Your task to perform on an android device: toggle airplane mode Image 0: 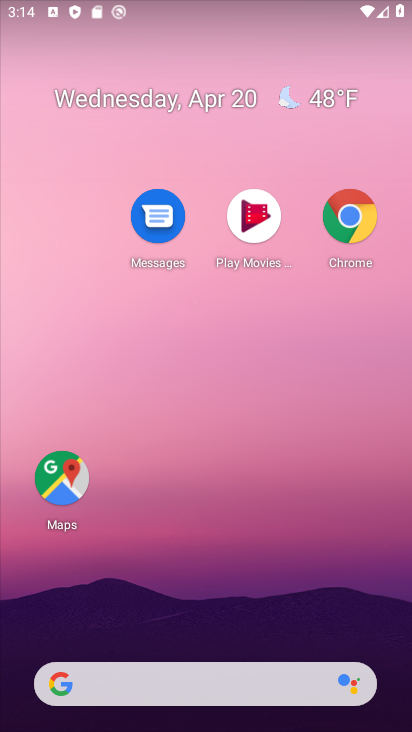
Step 0: click (334, 109)
Your task to perform on an android device: toggle airplane mode Image 1: 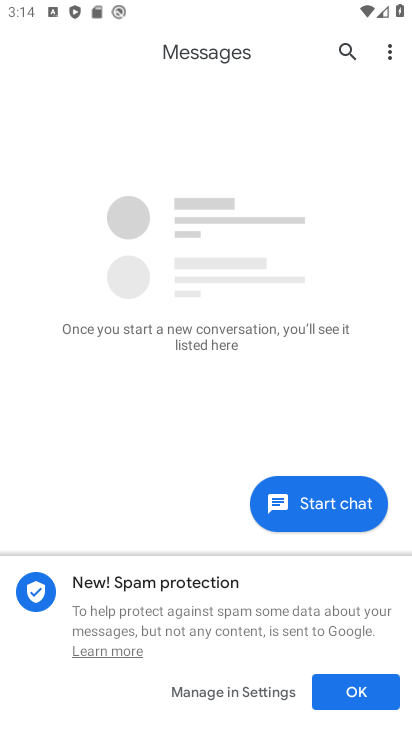
Step 1: press home button
Your task to perform on an android device: toggle airplane mode Image 2: 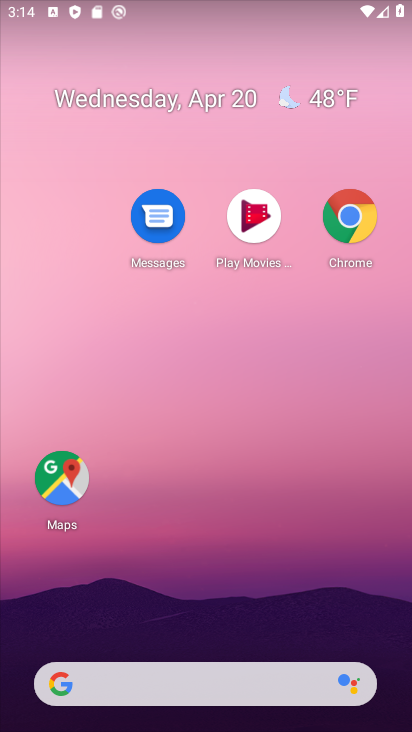
Step 2: drag from (263, 590) to (286, 101)
Your task to perform on an android device: toggle airplane mode Image 3: 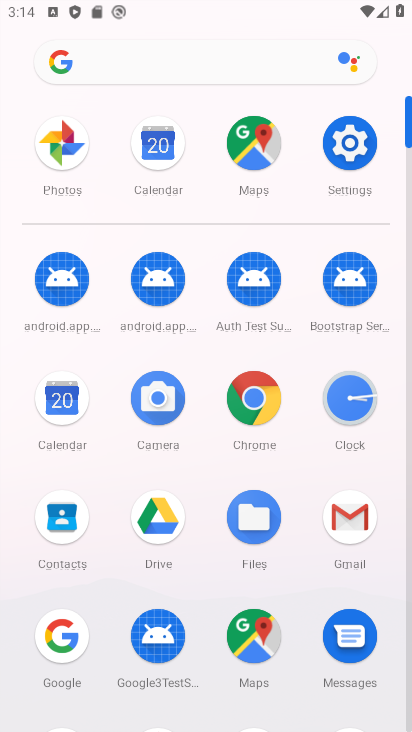
Step 3: click (360, 164)
Your task to perform on an android device: toggle airplane mode Image 4: 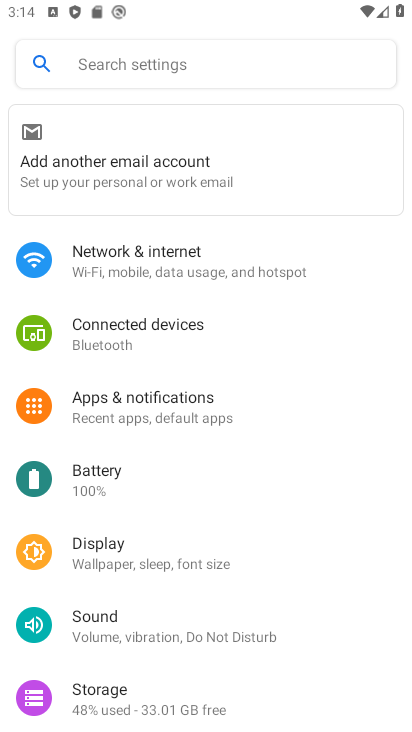
Step 4: click (165, 263)
Your task to perform on an android device: toggle airplane mode Image 5: 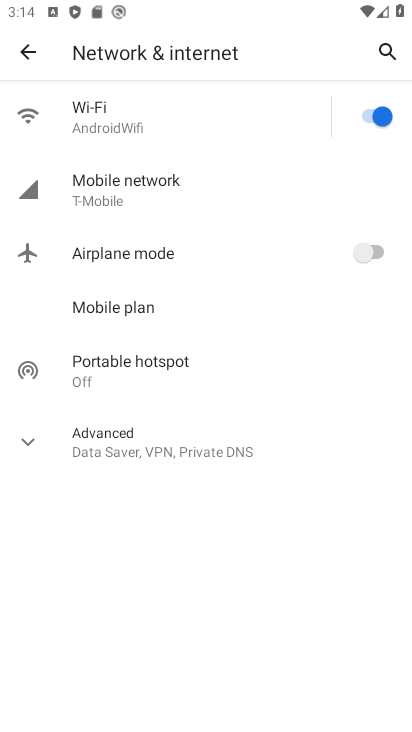
Step 5: click (371, 253)
Your task to perform on an android device: toggle airplane mode Image 6: 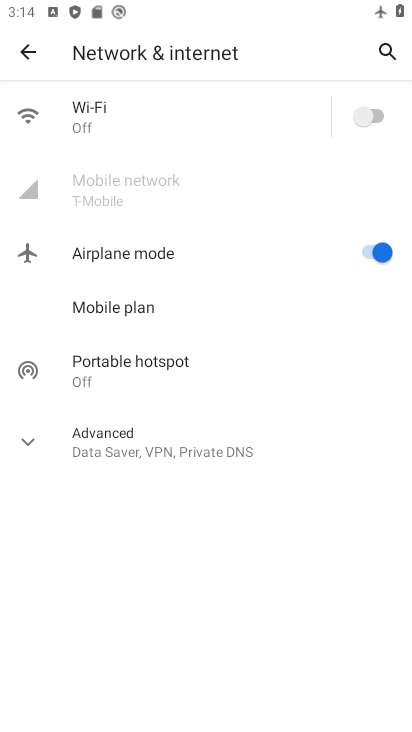
Step 6: task complete